Your task to perform on an android device: Open CNN.com Image 0: 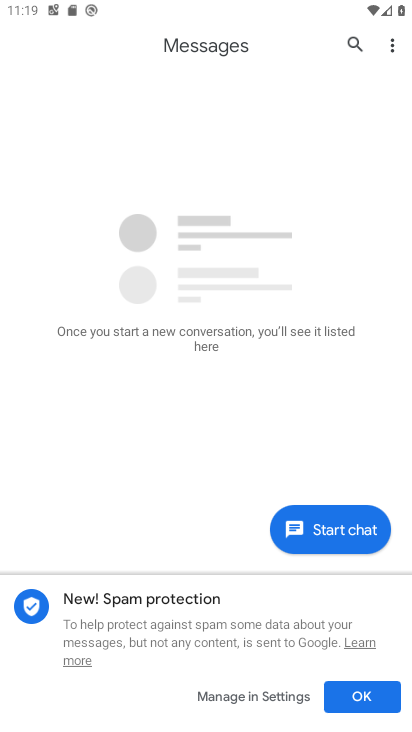
Step 0: press home button
Your task to perform on an android device: Open CNN.com Image 1: 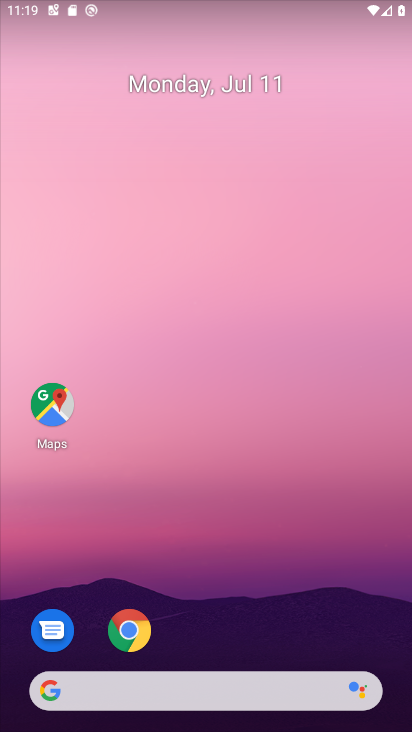
Step 1: click (129, 629)
Your task to perform on an android device: Open CNN.com Image 2: 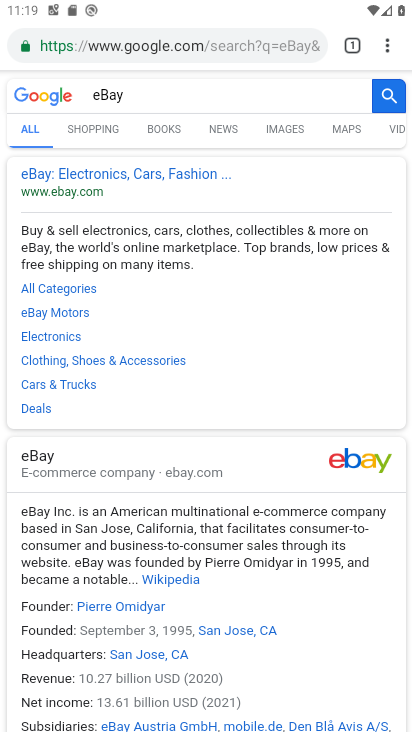
Step 2: click (205, 44)
Your task to perform on an android device: Open CNN.com Image 3: 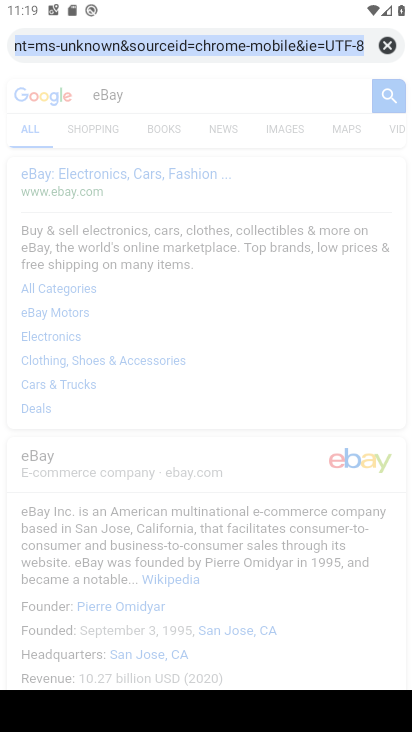
Step 3: type "CNN.com"
Your task to perform on an android device: Open CNN.com Image 4: 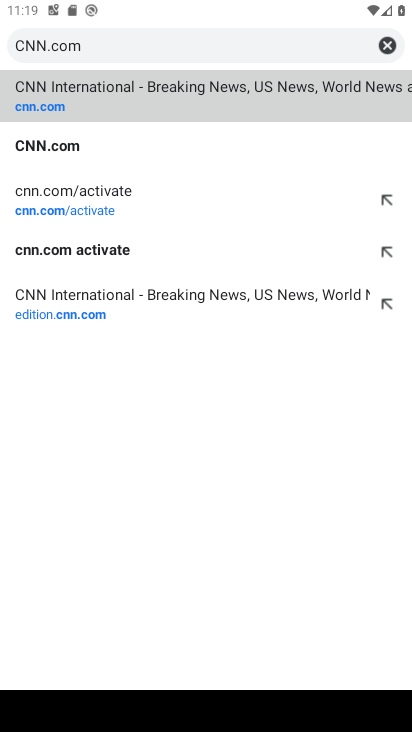
Step 4: click (145, 88)
Your task to perform on an android device: Open CNN.com Image 5: 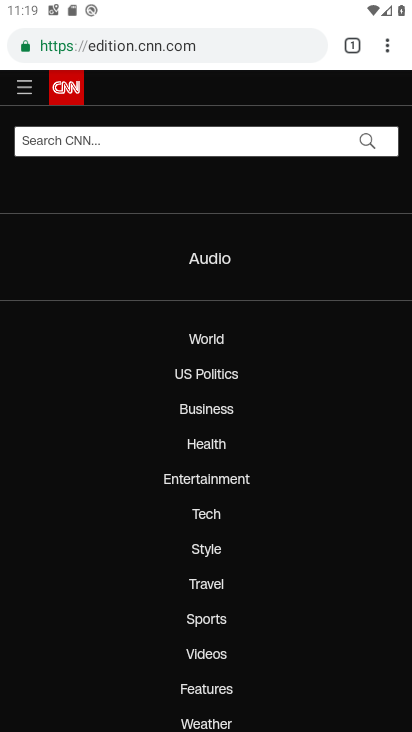
Step 5: task complete